Your task to perform on an android device: toggle sleep mode Image 0: 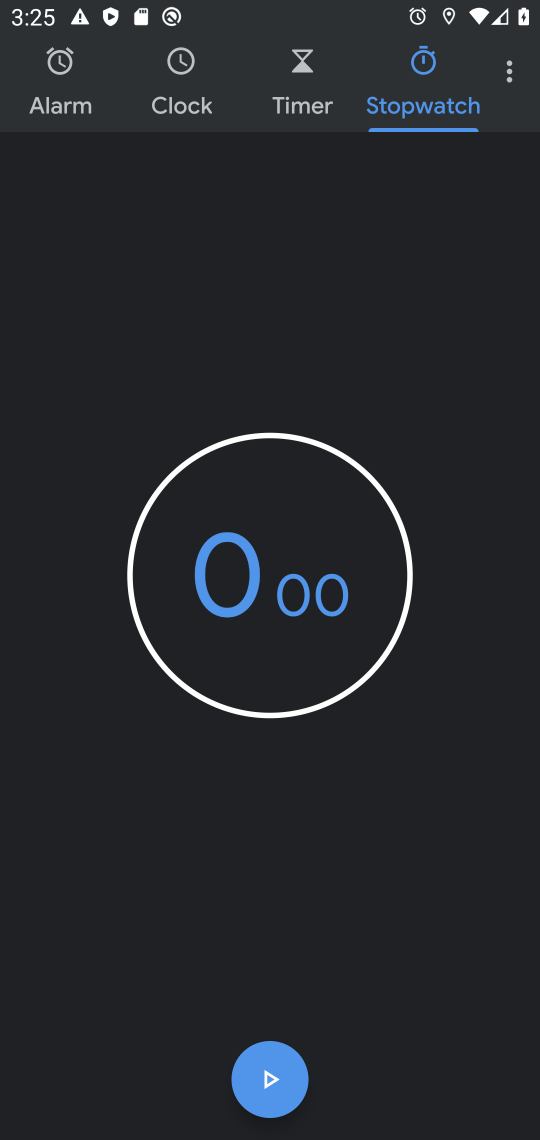
Step 0: press home button
Your task to perform on an android device: toggle sleep mode Image 1: 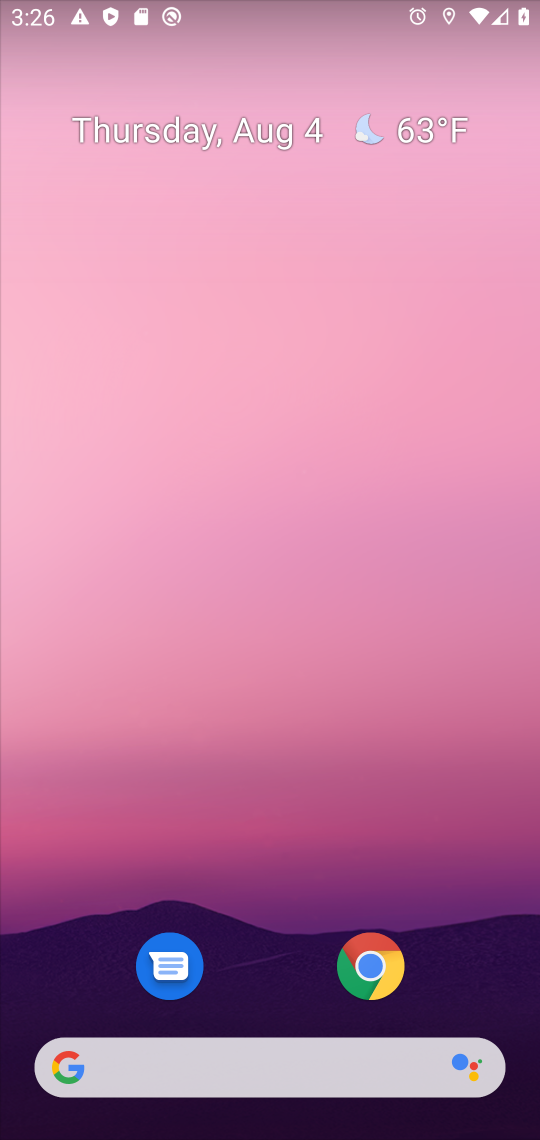
Step 1: drag from (282, 908) to (311, 115)
Your task to perform on an android device: toggle sleep mode Image 2: 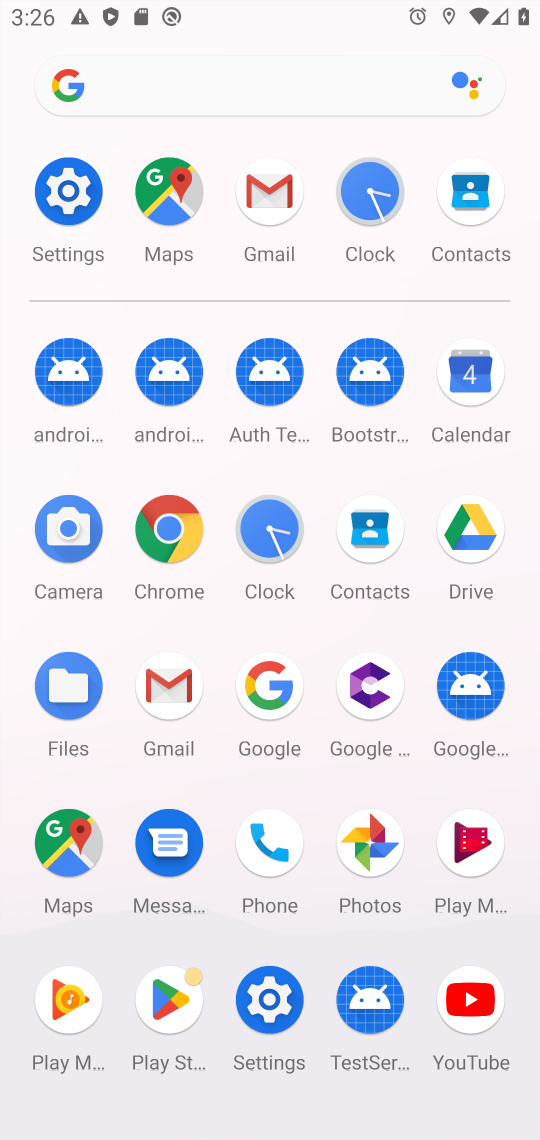
Step 2: click (78, 205)
Your task to perform on an android device: toggle sleep mode Image 3: 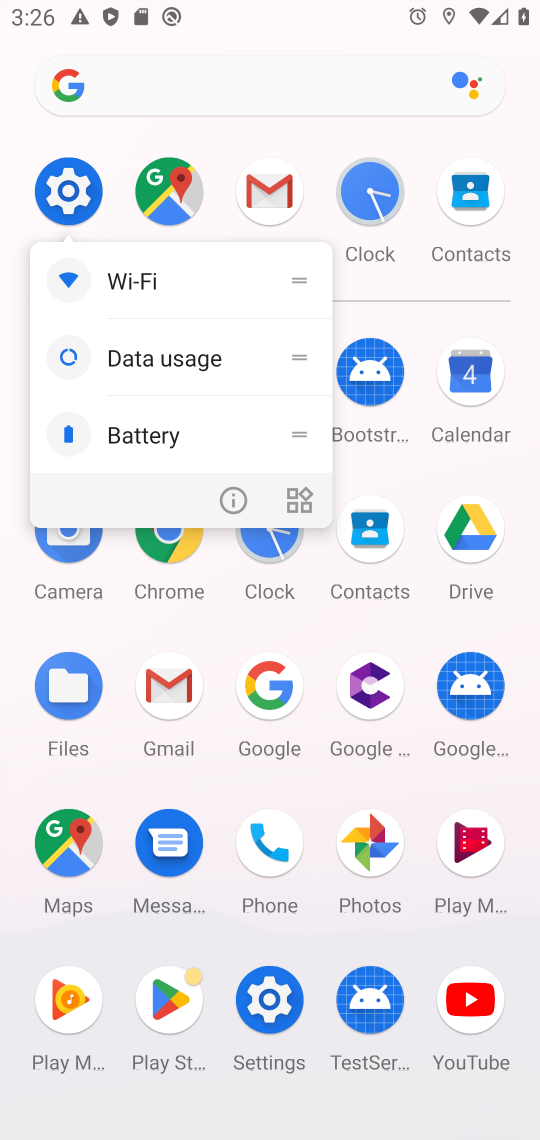
Step 3: click (78, 205)
Your task to perform on an android device: toggle sleep mode Image 4: 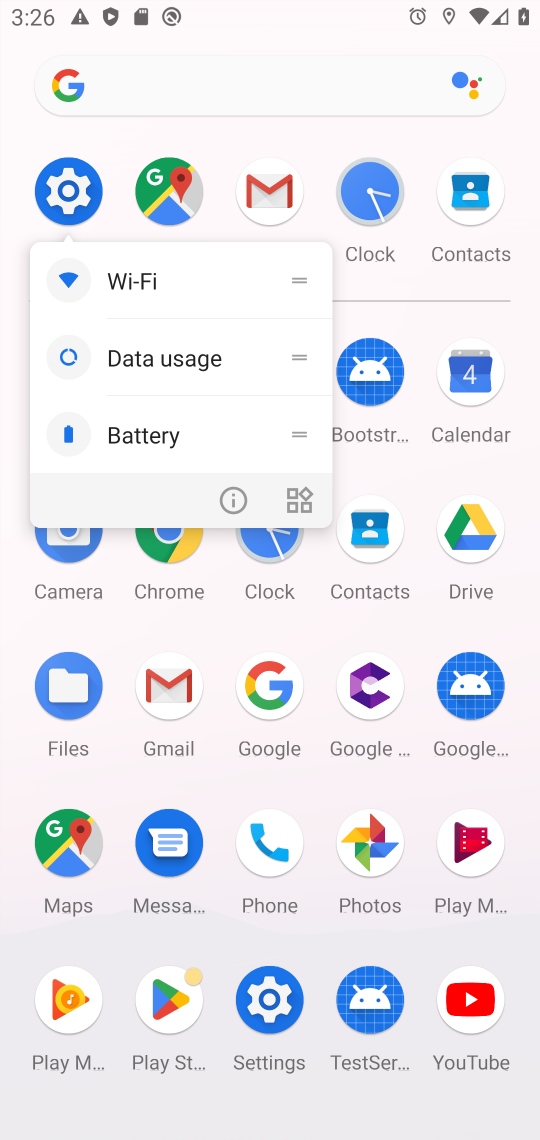
Step 4: click (78, 205)
Your task to perform on an android device: toggle sleep mode Image 5: 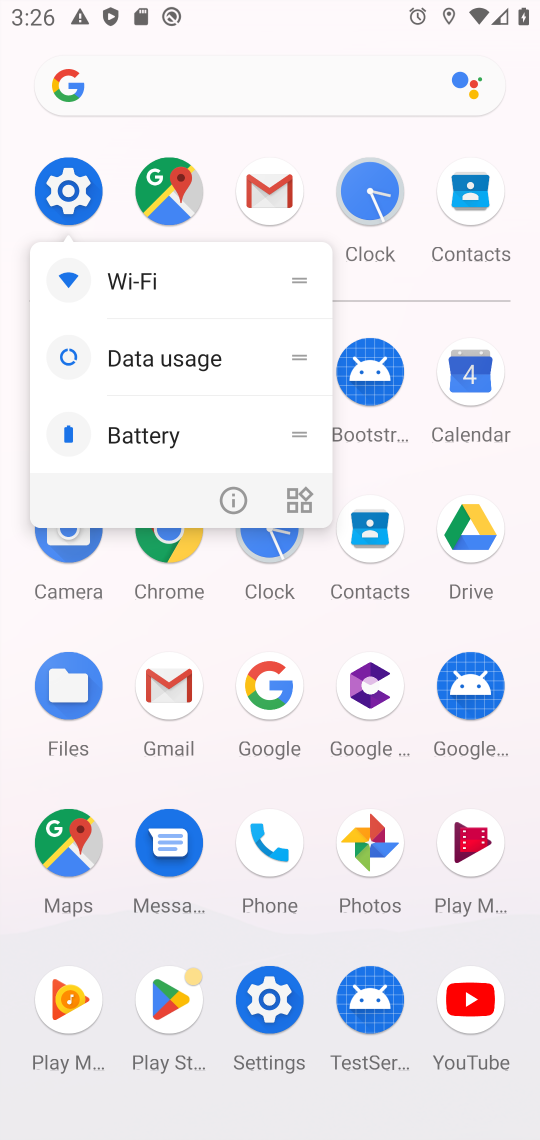
Step 5: click (60, 166)
Your task to perform on an android device: toggle sleep mode Image 6: 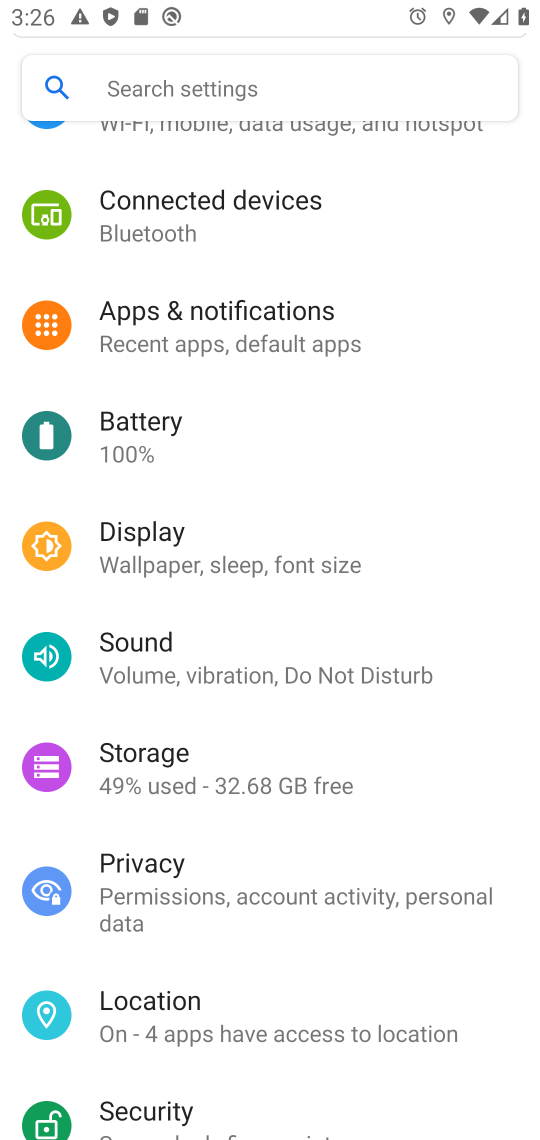
Step 6: click (140, 569)
Your task to perform on an android device: toggle sleep mode Image 7: 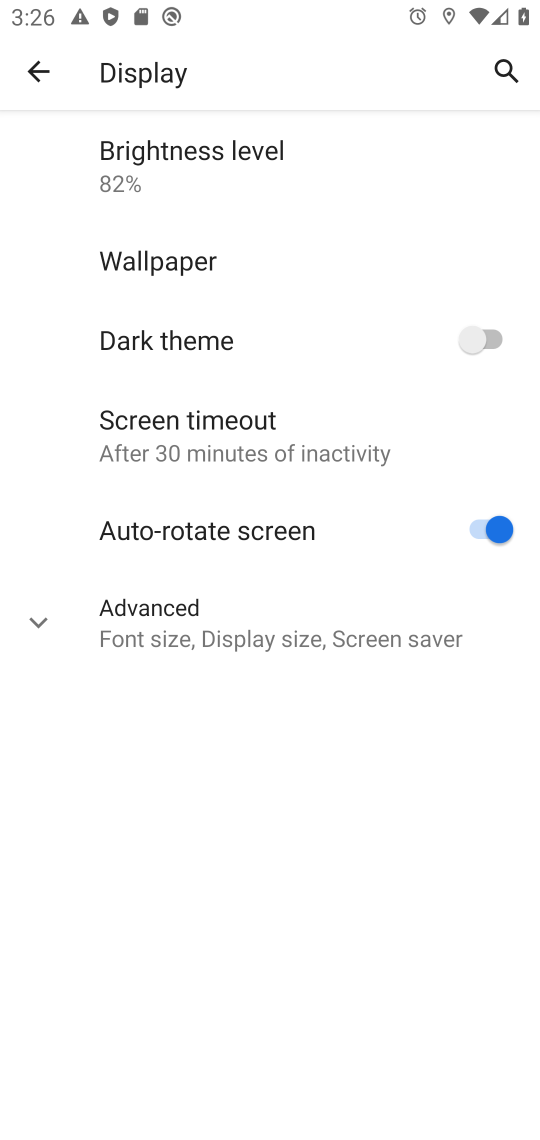
Step 7: task complete